Your task to perform on an android device: Search for Italian restaurants on Maps Image 0: 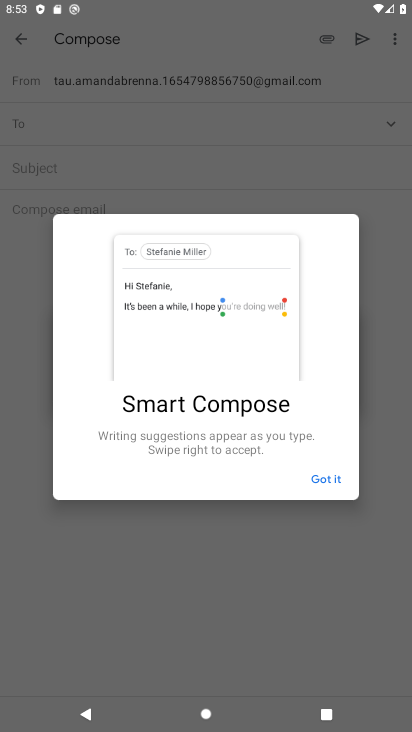
Step 0: press home button
Your task to perform on an android device: Search for Italian restaurants on Maps Image 1: 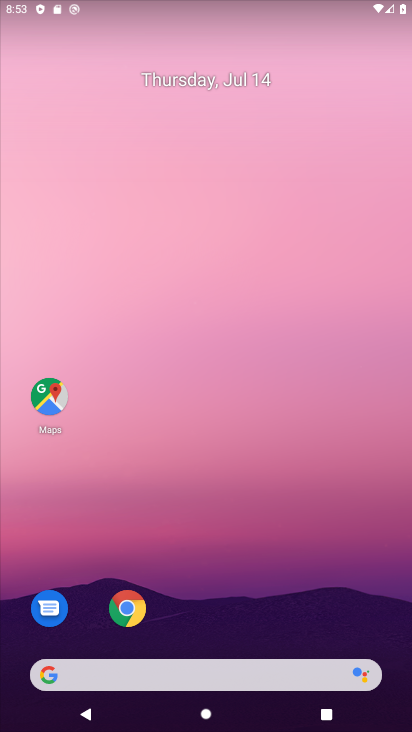
Step 1: drag from (163, 657) to (289, 73)
Your task to perform on an android device: Search for Italian restaurants on Maps Image 2: 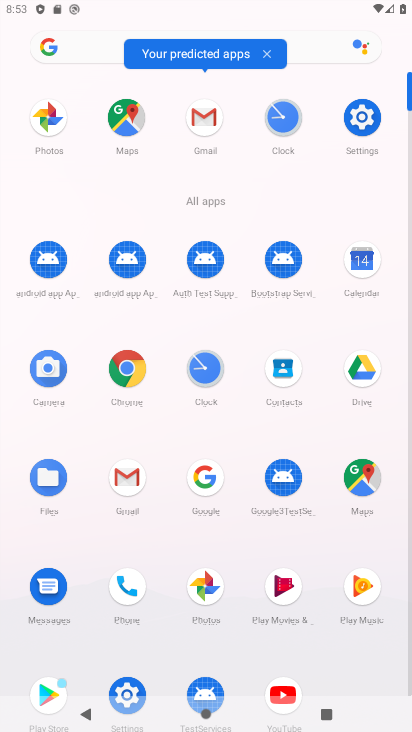
Step 2: click (365, 476)
Your task to perform on an android device: Search for Italian restaurants on Maps Image 3: 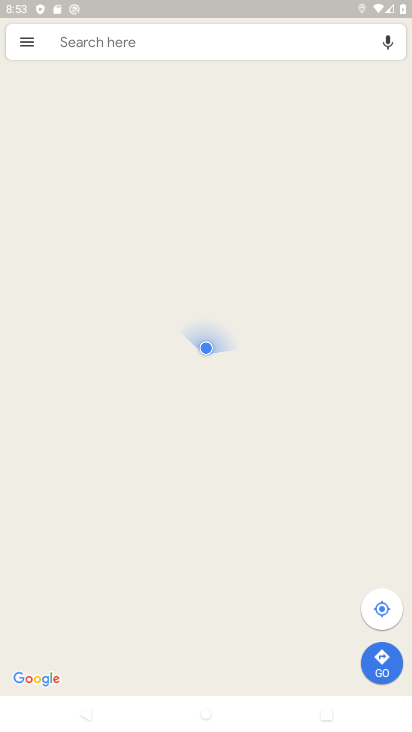
Step 3: click (128, 37)
Your task to perform on an android device: Search for Italian restaurants on Maps Image 4: 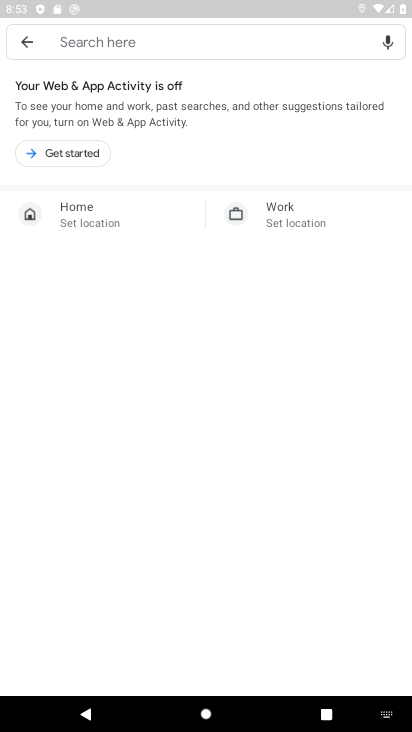
Step 4: type "Italian restaurants"
Your task to perform on an android device: Search for Italian restaurants on Maps Image 5: 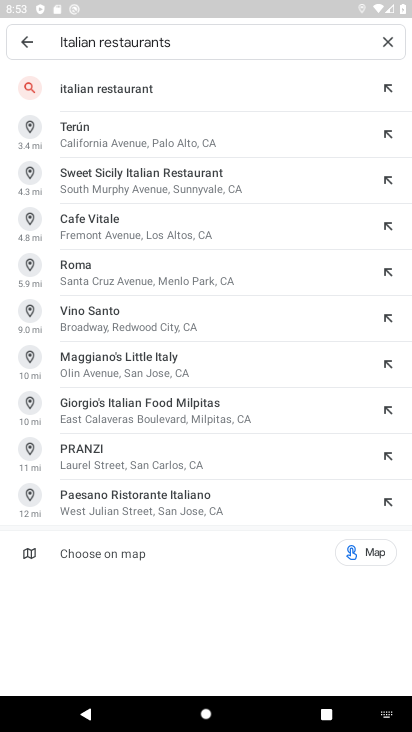
Step 5: click (149, 97)
Your task to perform on an android device: Search for Italian restaurants on Maps Image 6: 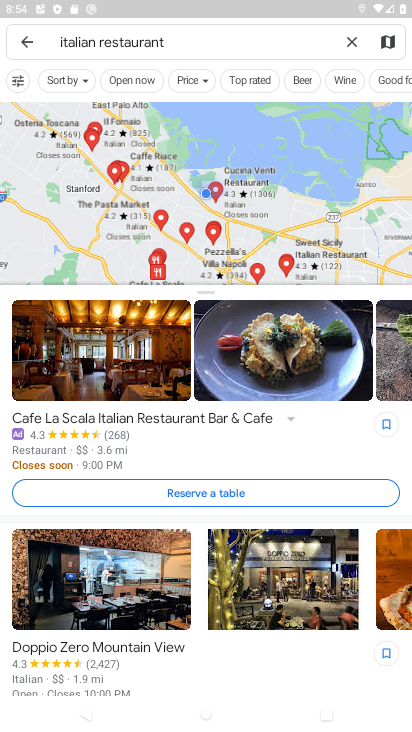
Step 6: task complete